Your task to perform on an android device: What's the price of the Galaxy phone on eBay? Image 0: 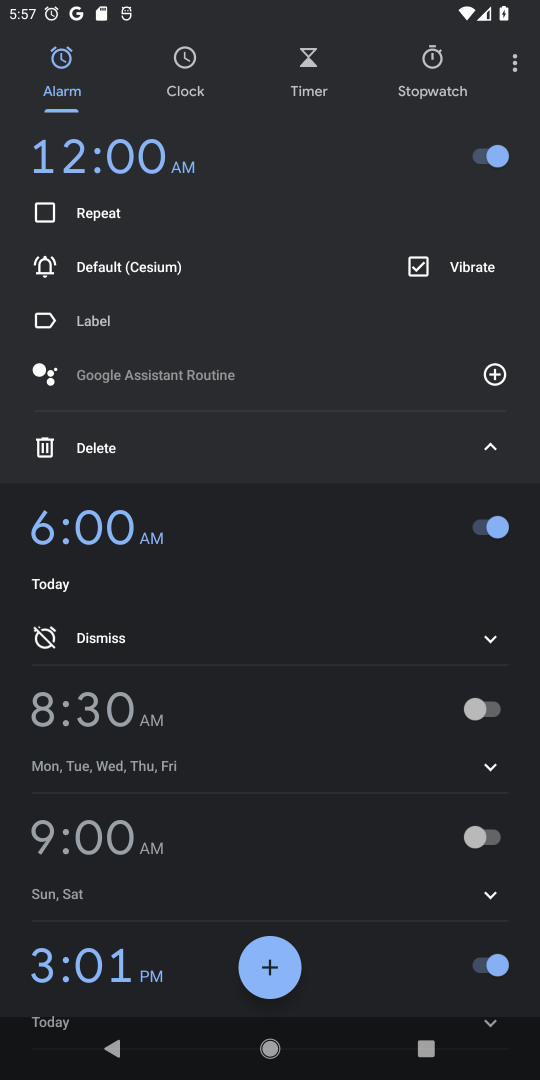
Step 0: click (491, 446)
Your task to perform on an android device: What's the price of the Galaxy phone on eBay? Image 1: 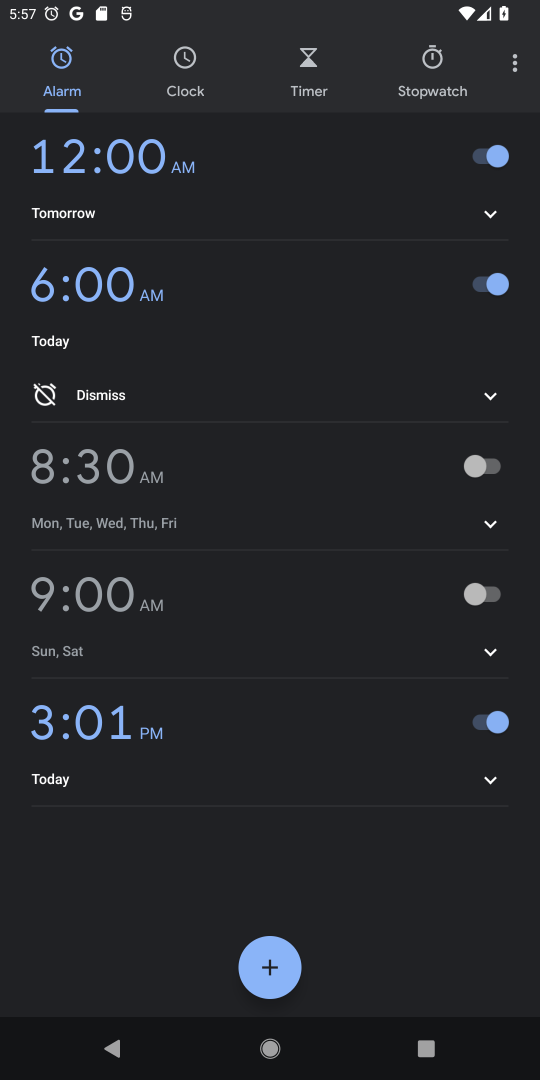
Step 1: press home button
Your task to perform on an android device: What's the price of the Galaxy phone on eBay? Image 2: 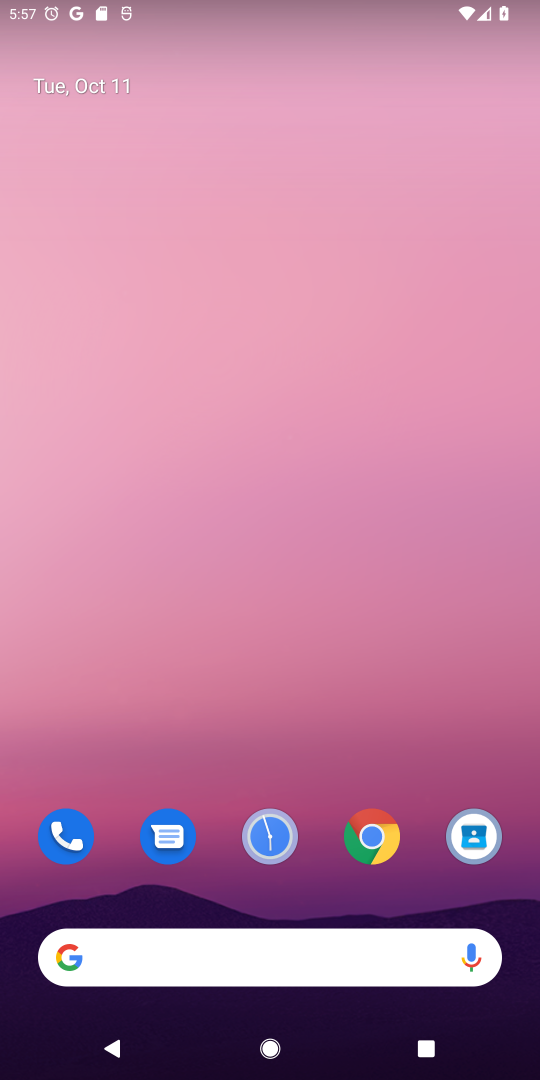
Step 2: click (275, 959)
Your task to perform on an android device: What's the price of the Galaxy phone on eBay? Image 3: 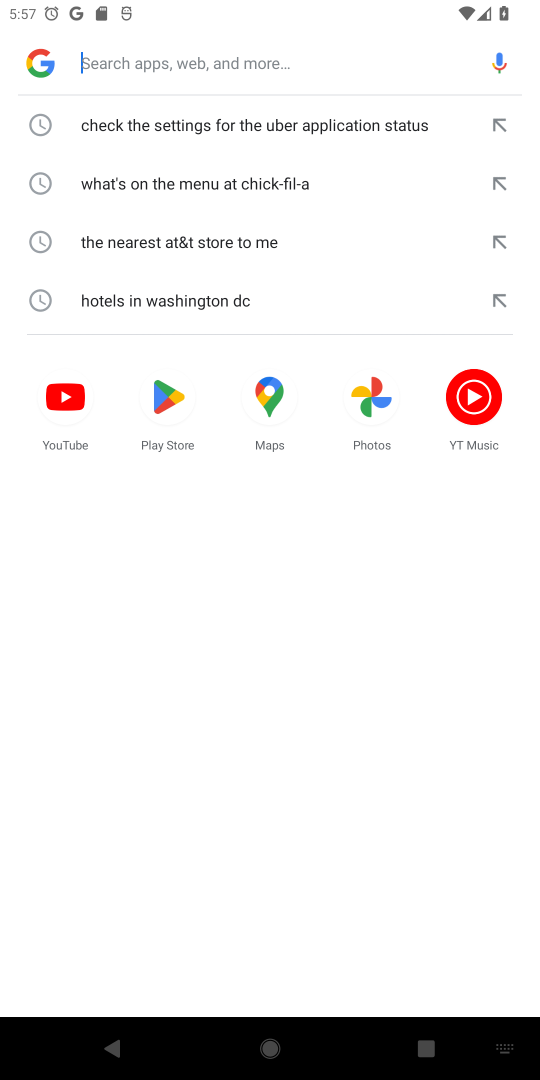
Step 3: type "the Galaxy phone on eBay?"
Your task to perform on an android device: What's the price of the Galaxy phone on eBay? Image 4: 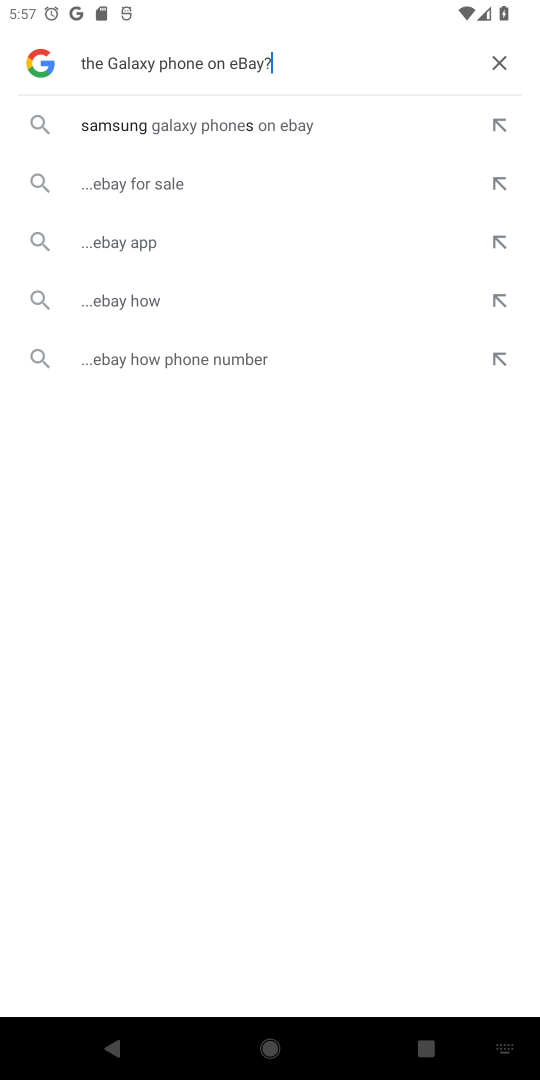
Step 4: click (332, 107)
Your task to perform on an android device: What's the price of the Galaxy phone on eBay? Image 5: 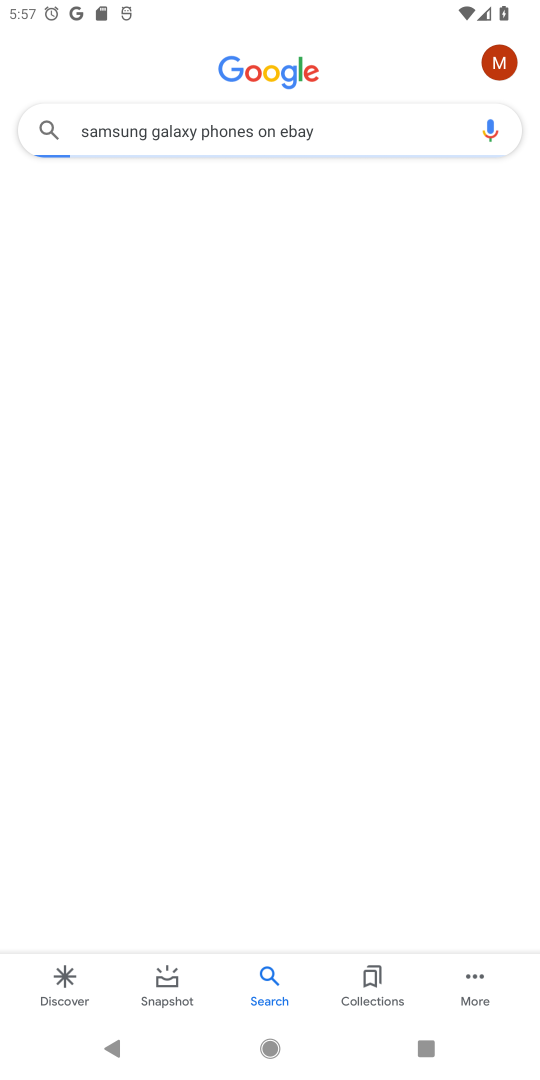
Step 5: task complete